Your task to perform on an android device: Open location settings Image 0: 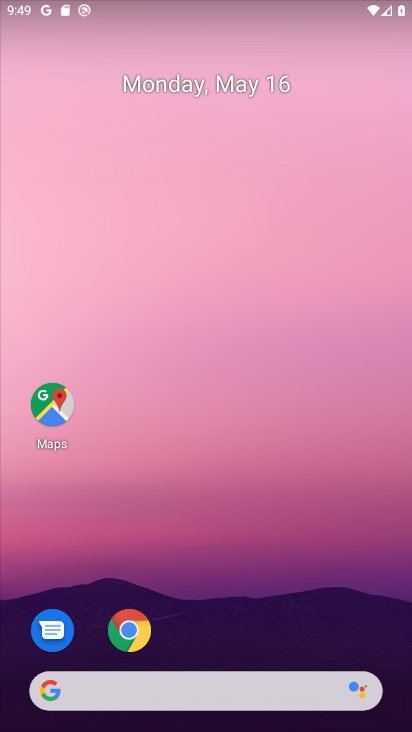
Step 0: drag from (227, 586) to (278, 25)
Your task to perform on an android device: Open location settings Image 1: 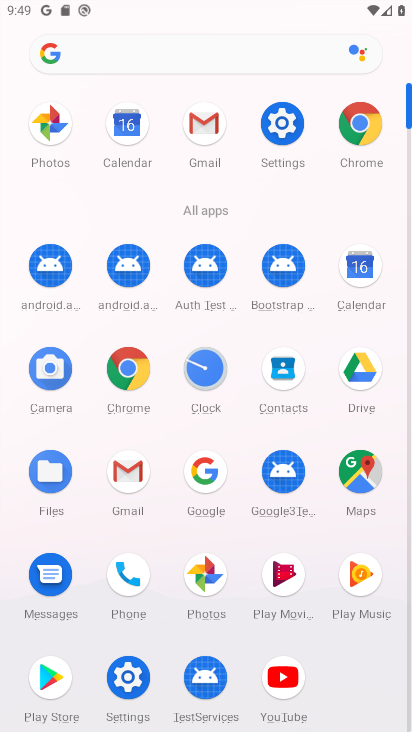
Step 1: click (274, 114)
Your task to perform on an android device: Open location settings Image 2: 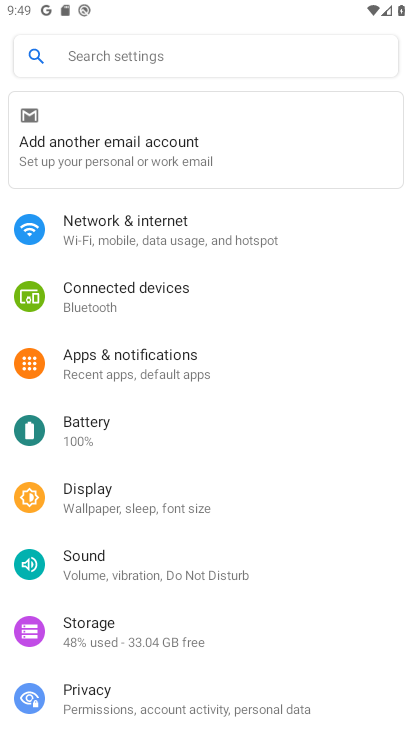
Step 2: drag from (265, 594) to (282, 242)
Your task to perform on an android device: Open location settings Image 3: 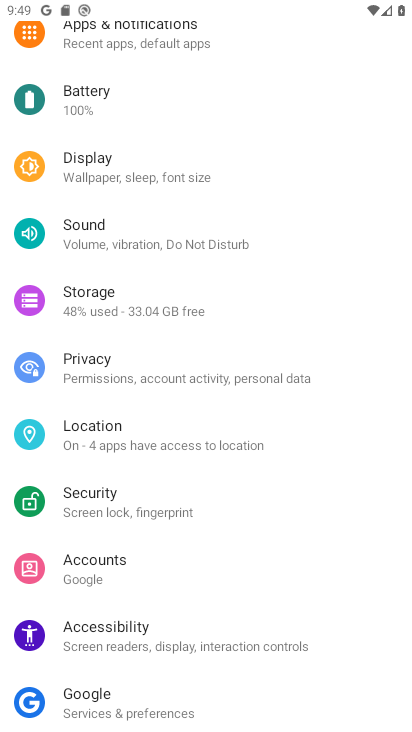
Step 3: click (161, 436)
Your task to perform on an android device: Open location settings Image 4: 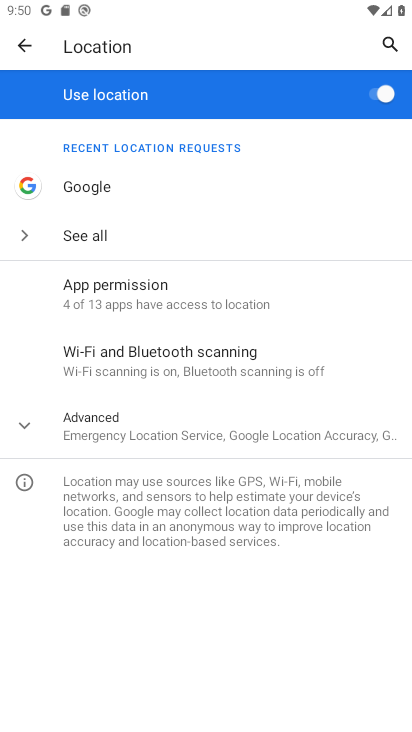
Step 4: task complete